Your task to perform on an android device: turn off picture-in-picture Image 0: 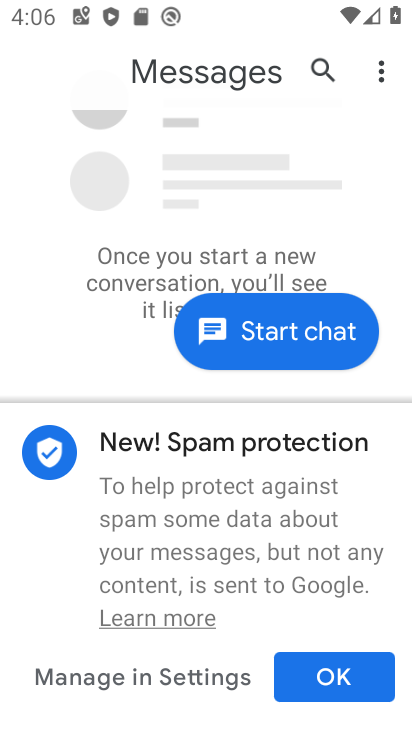
Step 0: press home button
Your task to perform on an android device: turn off picture-in-picture Image 1: 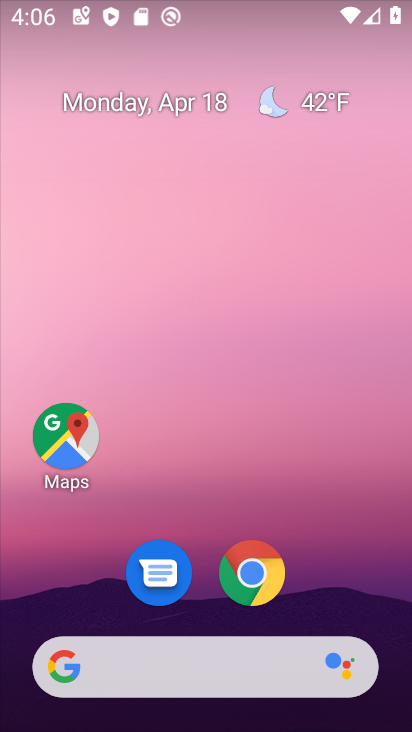
Step 1: click (260, 582)
Your task to perform on an android device: turn off picture-in-picture Image 2: 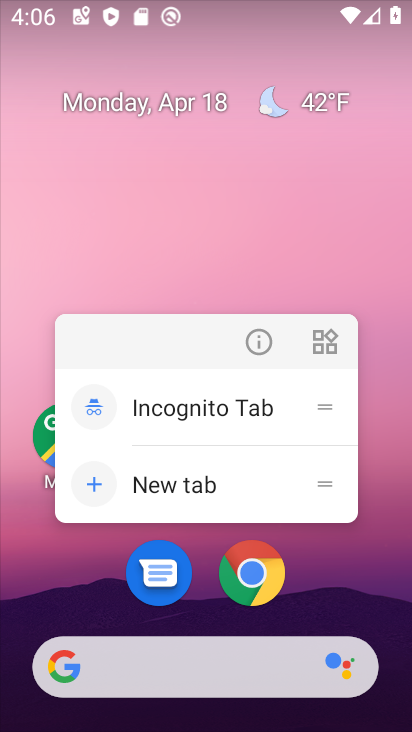
Step 2: click (257, 340)
Your task to perform on an android device: turn off picture-in-picture Image 3: 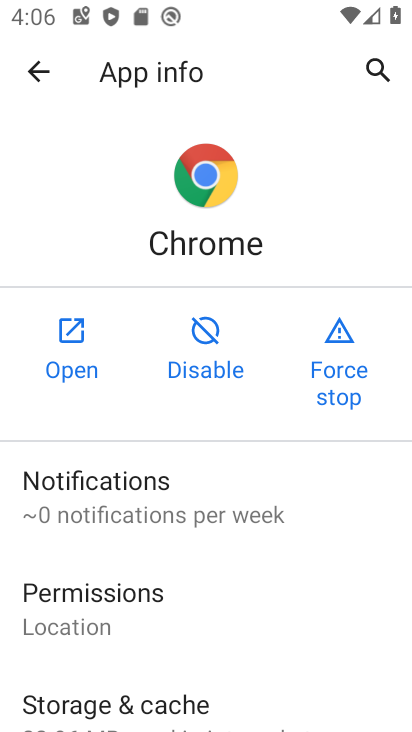
Step 3: drag from (167, 715) to (168, 398)
Your task to perform on an android device: turn off picture-in-picture Image 4: 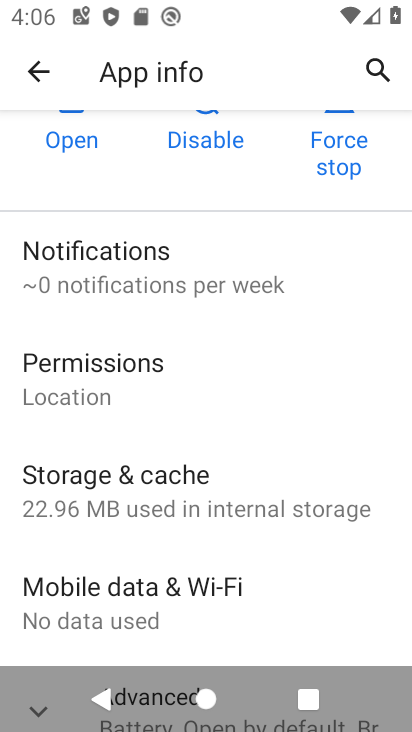
Step 4: drag from (191, 674) to (181, 425)
Your task to perform on an android device: turn off picture-in-picture Image 5: 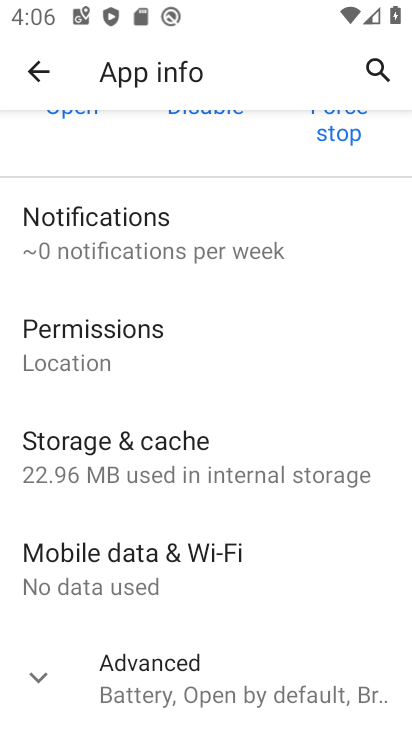
Step 5: click (181, 675)
Your task to perform on an android device: turn off picture-in-picture Image 6: 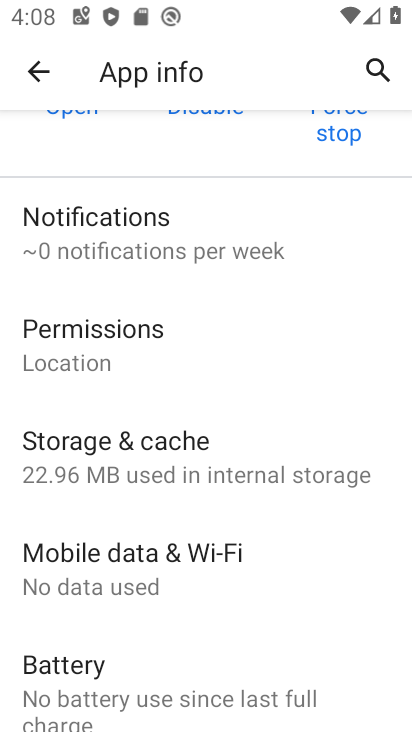
Step 6: drag from (200, 680) to (219, 285)
Your task to perform on an android device: turn off picture-in-picture Image 7: 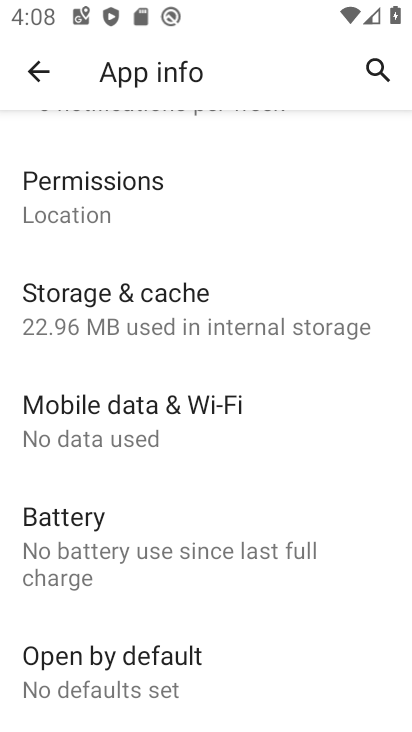
Step 7: drag from (145, 687) to (168, 329)
Your task to perform on an android device: turn off picture-in-picture Image 8: 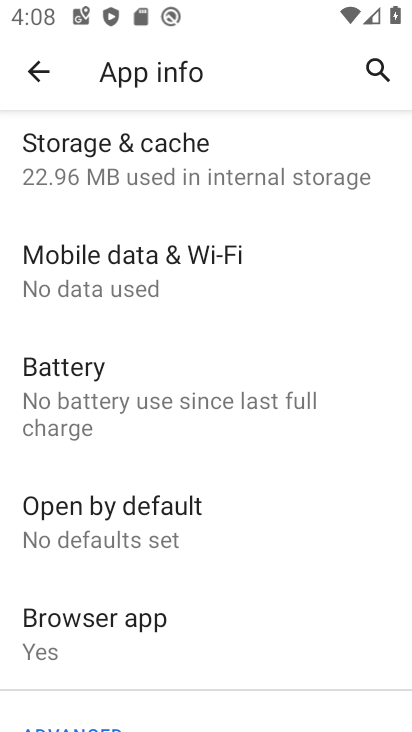
Step 8: drag from (151, 649) to (154, 358)
Your task to perform on an android device: turn off picture-in-picture Image 9: 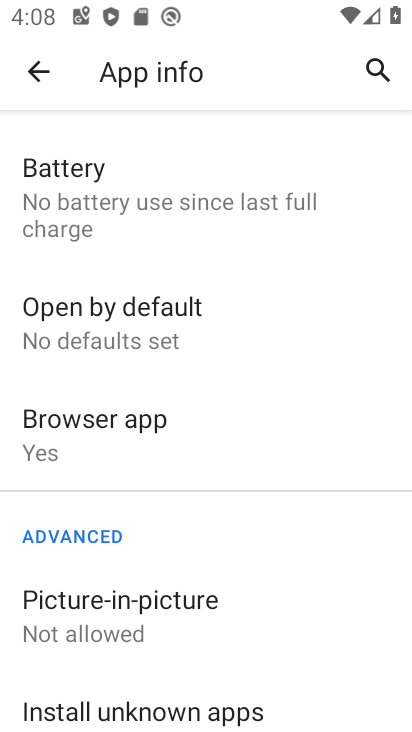
Step 9: click (113, 639)
Your task to perform on an android device: turn off picture-in-picture Image 10: 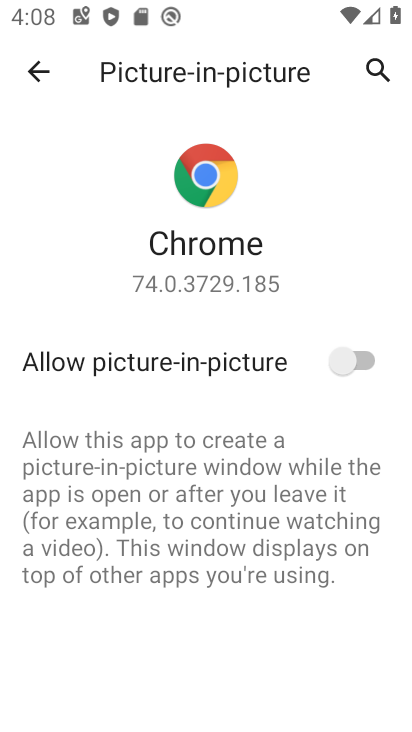
Step 10: task complete